Your task to perform on an android device: turn notification dots off Image 0: 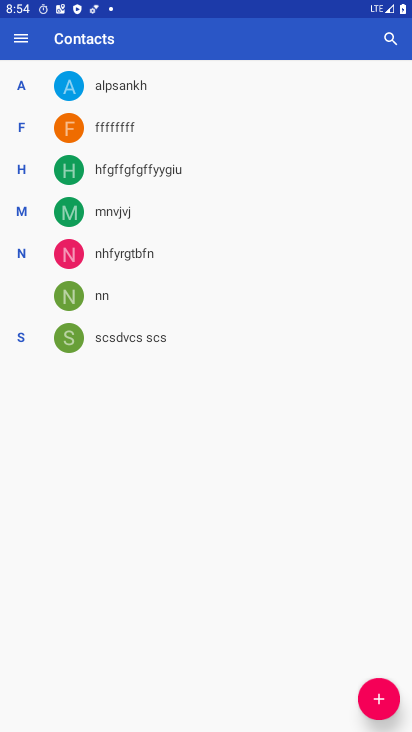
Step 0: press home button
Your task to perform on an android device: turn notification dots off Image 1: 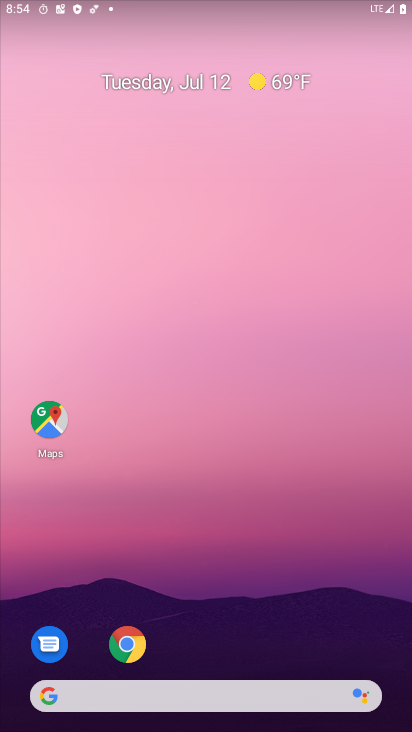
Step 1: drag from (247, 664) to (254, 169)
Your task to perform on an android device: turn notification dots off Image 2: 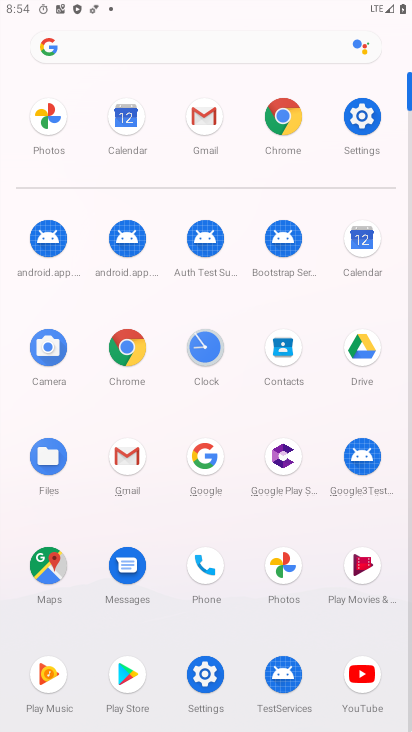
Step 2: click (357, 114)
Your task to perform on an android device: turn notification dots off Image 3: 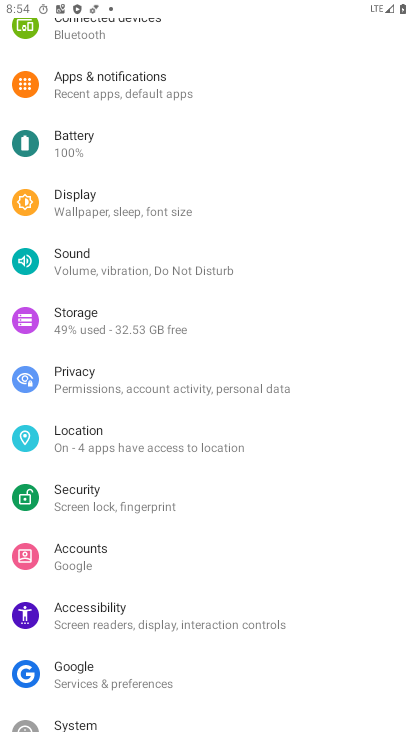
Step 3: click (190, 83)
Your task to perform on an android device: turn notification dots off Image 4: 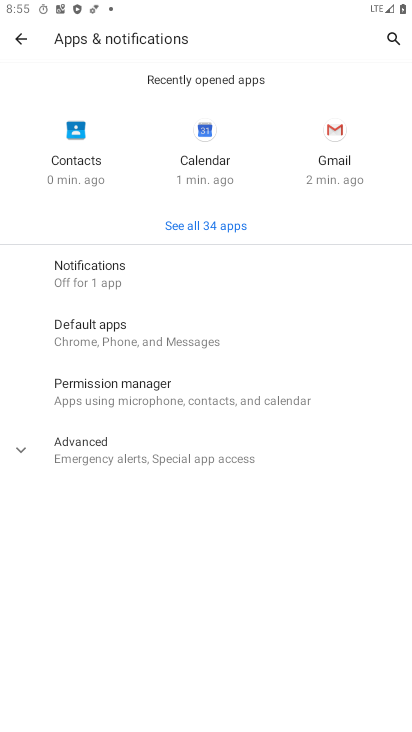
Step 4: click (25, 451)
Your task to perform on an android device: turn notification dots off Image 5: 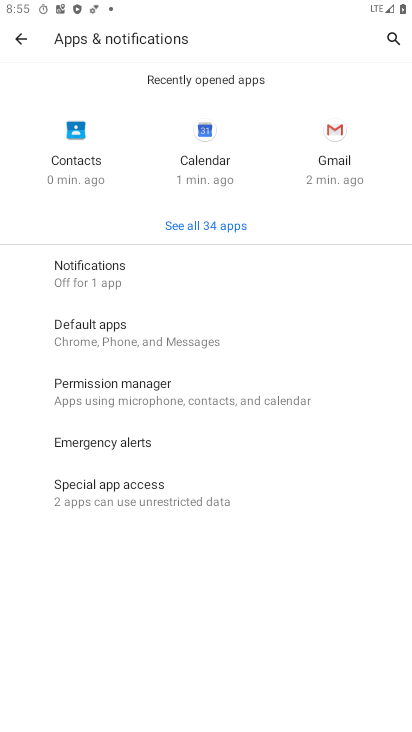
Step 5: click (104, 277)
Your task to perform on an android device: turn notification dots off Image 6: 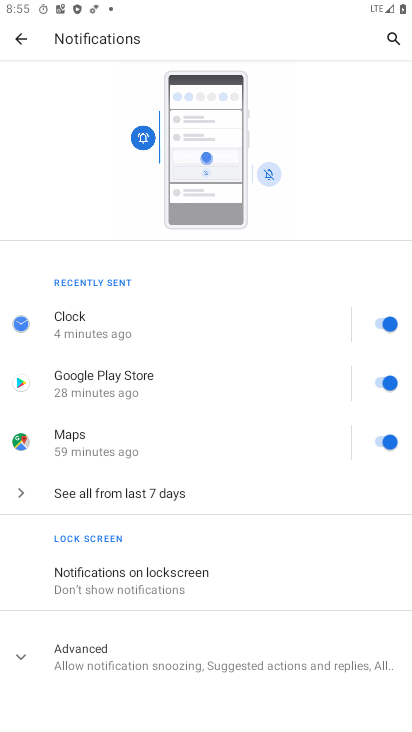
Step 6: click (23, 653)
Your task to perform on an android device: turn notification dots off Image 7: 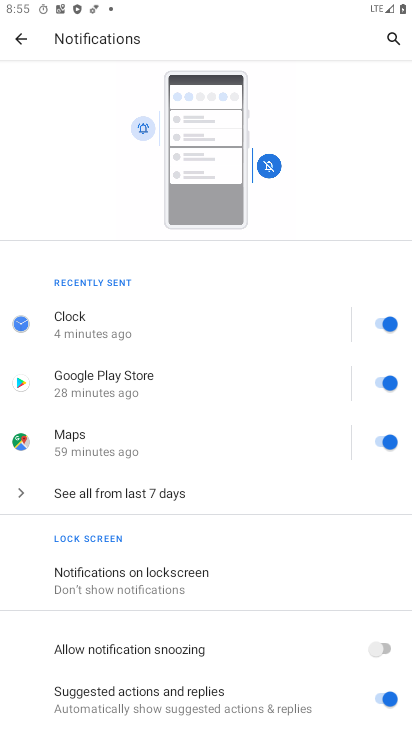
Step 7: task complete